Your task to perform on an android device: set the timer Image 0: 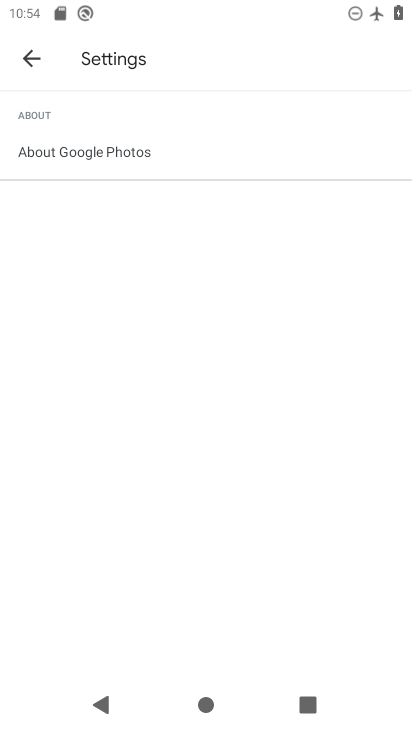
Step 0: drag from (207, 525) to (278, 355)
Your task to perform on an android device: set the timer Image 1: 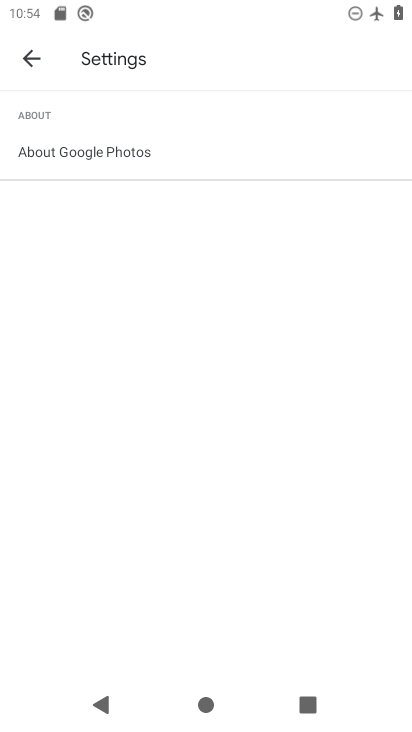
Step 1: press home button
Your task to perform on an android device: set the timer Image 2: 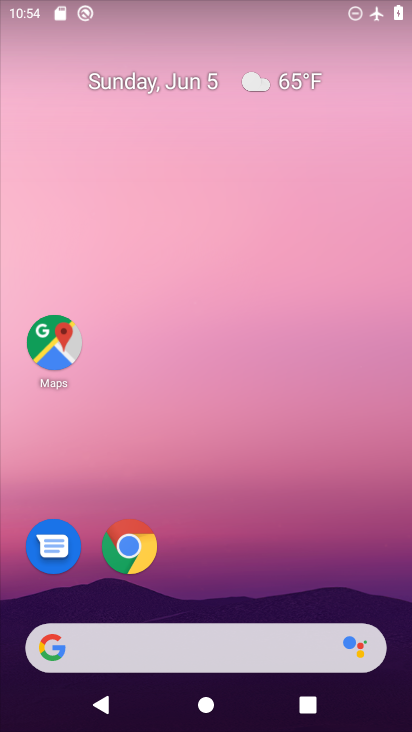
Step 2: drag from (221, 569) to (217, 91)
Your task to perform on an android device: set the timer Image 3: 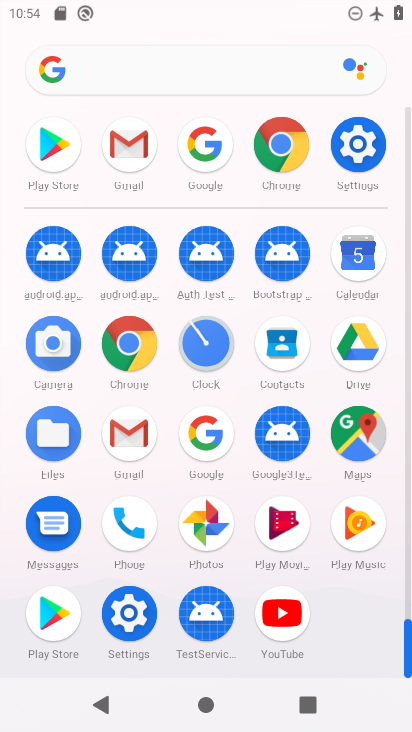
Step 3: click (349, 140)
Your task to perform on an android device: set the timer Image 4: 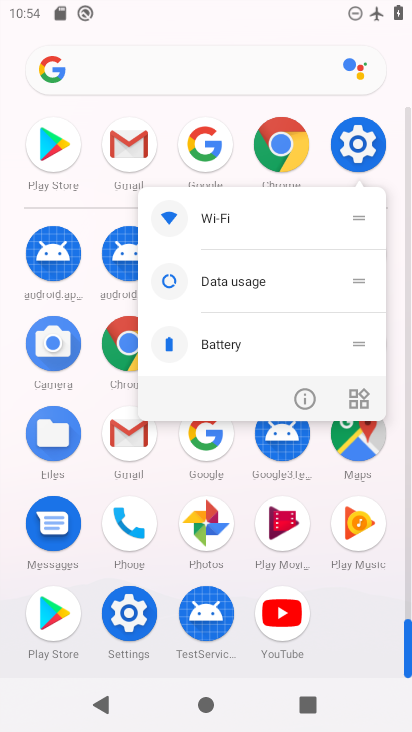
Step 4: click (310, 399)
Your task to perform on an android device: set the timer Image 5: 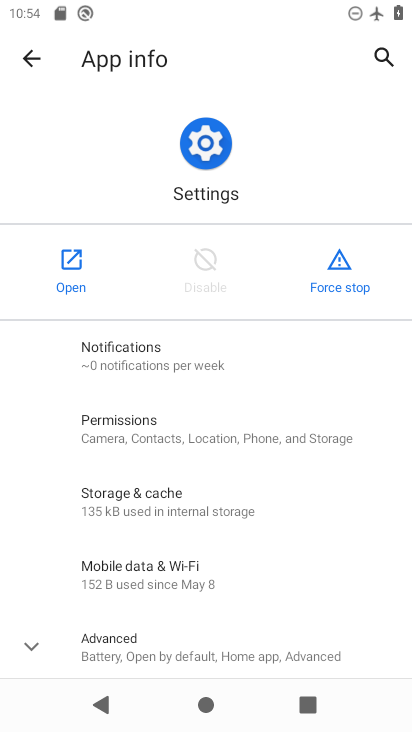
Step 5: press home button
Your task to perform on an android device: set the timer Image 6: 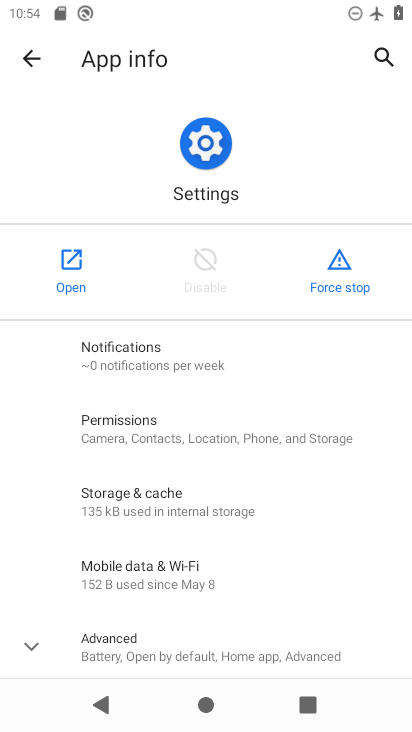
Step 6: drag from (380, 555) to (316, 22)
Your task to perform on an android device: set the timer Image 7: 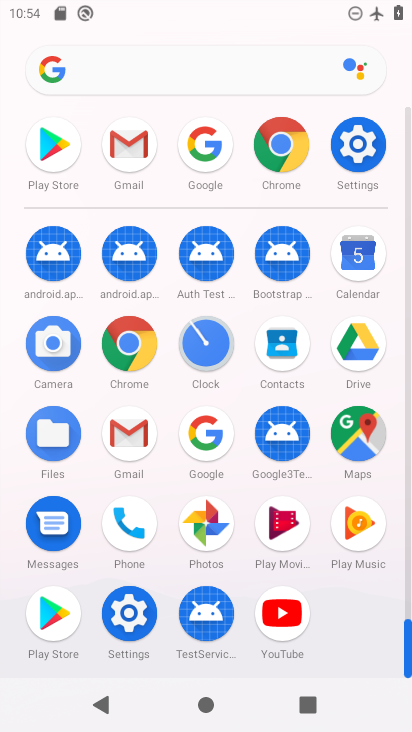
Step 7: click (196, 352)
Your task to perform on an android device: set the timer Image 8: 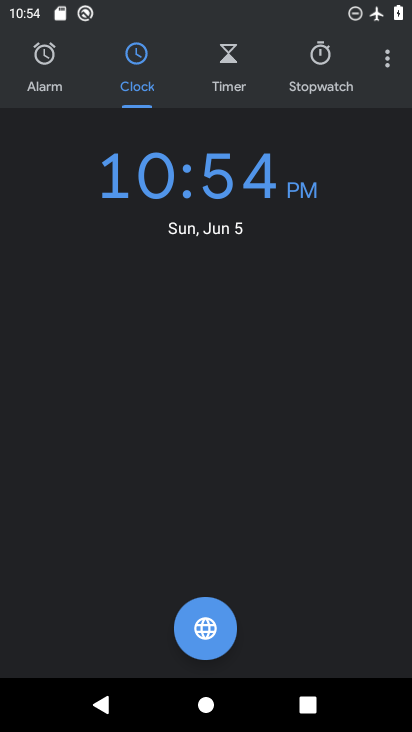
Step 8: click (379, 70)
Your task to perform on an android device: set the timer Image 9: 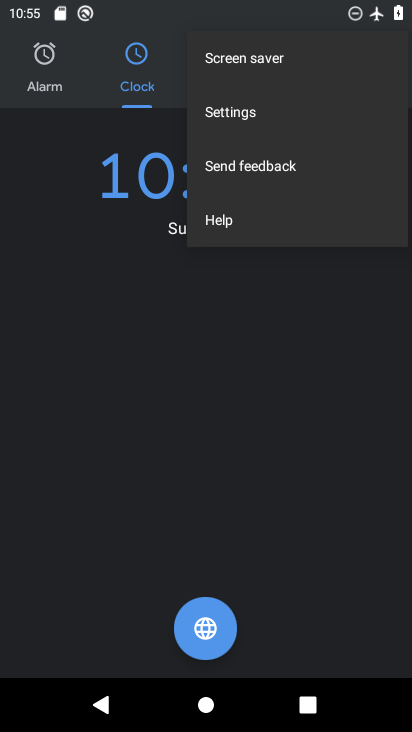
Step 9: click (282, 112)
Your task to perform on an android device: set the timer Image 10: 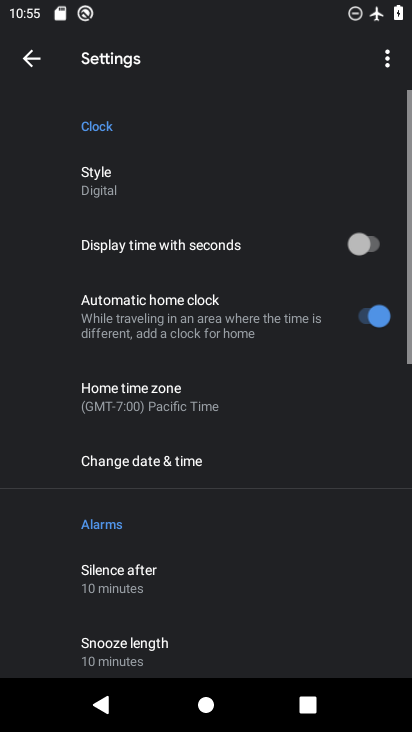
Step 10: click (43, 80)
Your task to perform on an android device: set the timer Image 11: 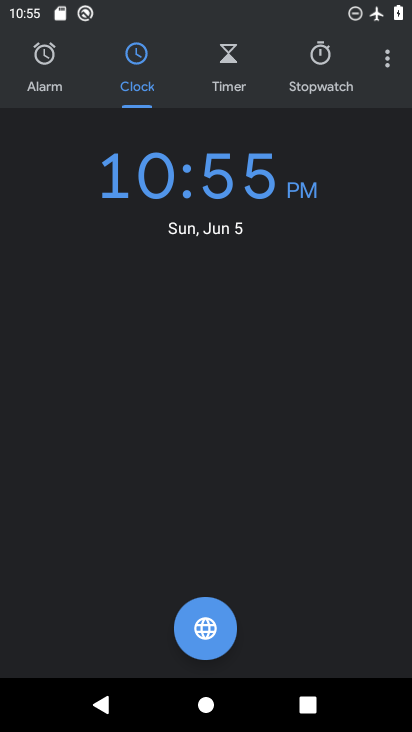
Step 11: click (237, 53)
Your task to perform on an android device: set the timer Image 12: 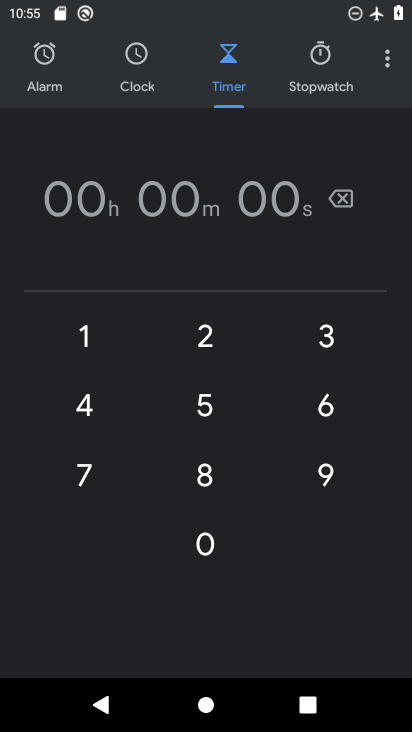
Step 12: click (190, 342)
Your task to perform on an android device: set the timer Image 13: 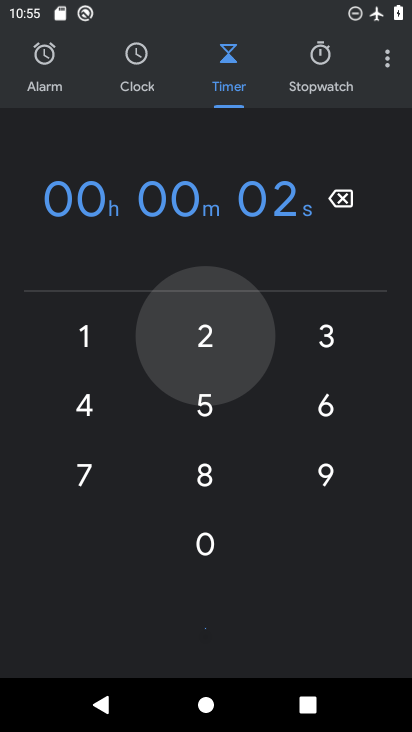
Step 13: click (207, 377)
Your task to perform on an android device: set the timer Image 14: 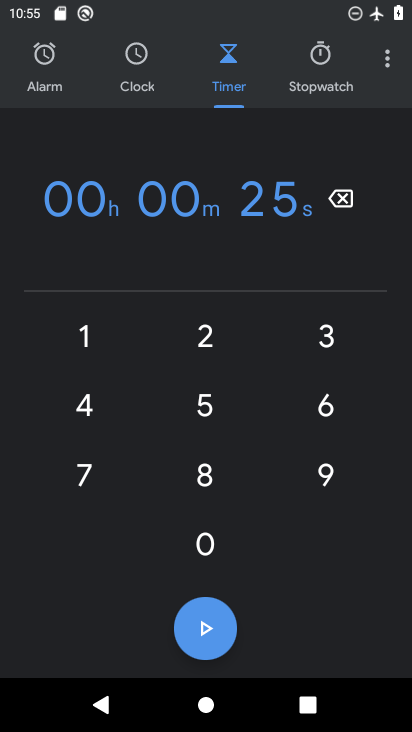
Step 14: click (207, 648)
Your task to perform on an android device: set the timer Image 15: 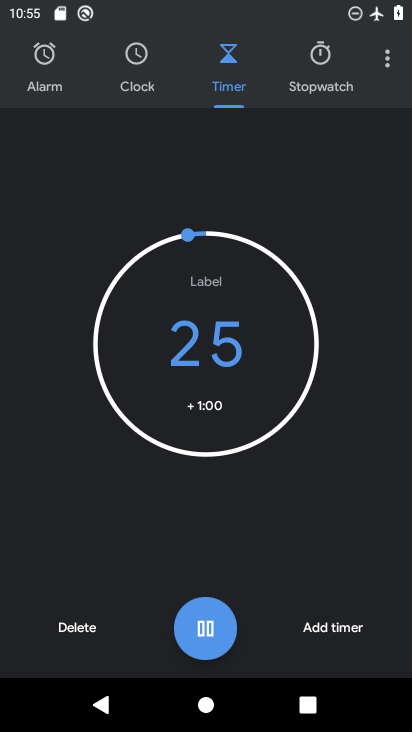
Step 15: task complete